Your task to perform on an android device: Toggle the flashlight Image 0: 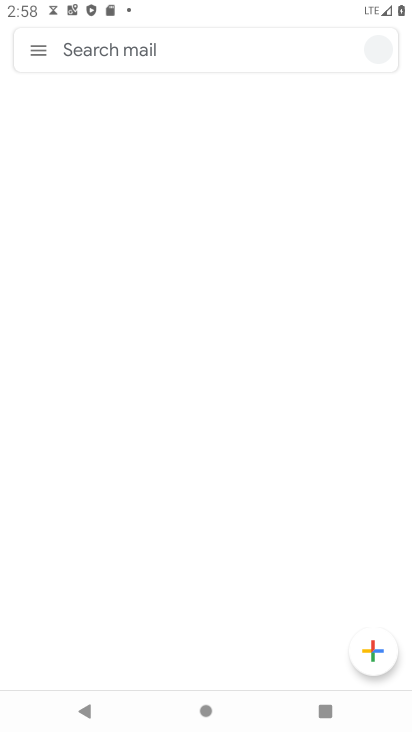
Step 0: drag from (246, 541) to (256, 117)
Your task to perform on an android device: Toggle the flashlight Image 1: 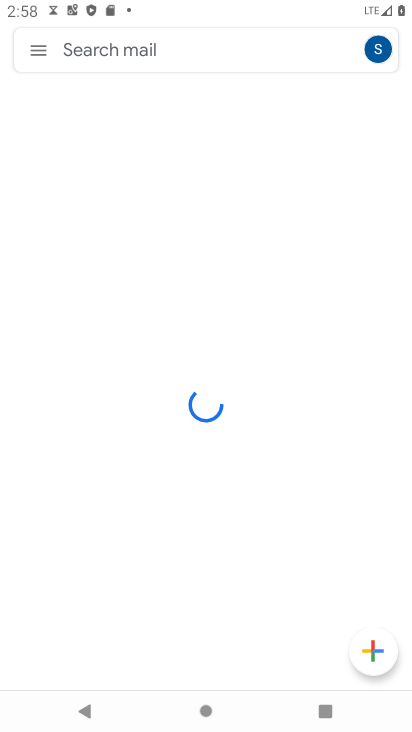
Step 1: press home button
Your task to perform on an android device: Toggle the flashlight Image 2: 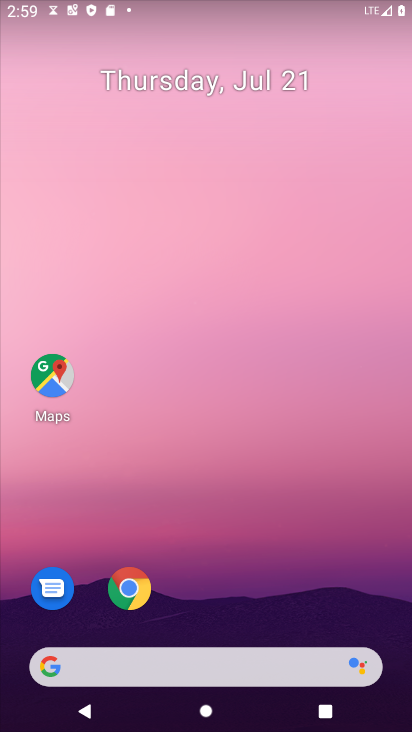
Step 2: drag from (216, 621) to (253, 164)
Your task to perform on an android device: Toggle the flashlight Image 3: 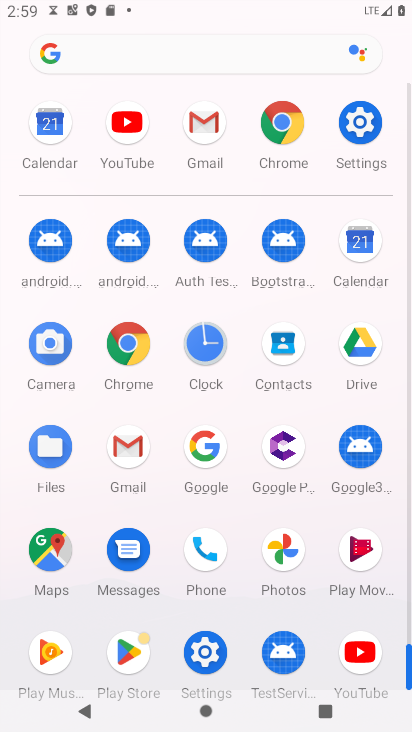
Step 3: click (354, 129)
Your task to perform on an android device: Toggle the flashlight Image 4: 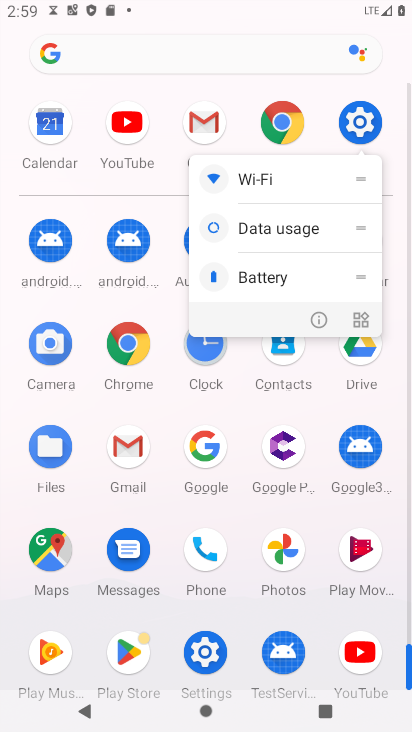
Step 4: click (319, 327)
Your task to perform on an android device: Toggle the flashlight Image 5: 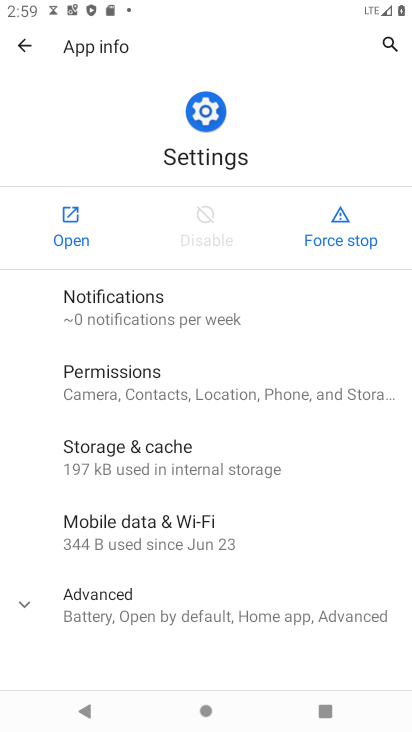
Step 5: click (63, 226)
Your task to perform on an android device: Toggle the flashlight Image 6: 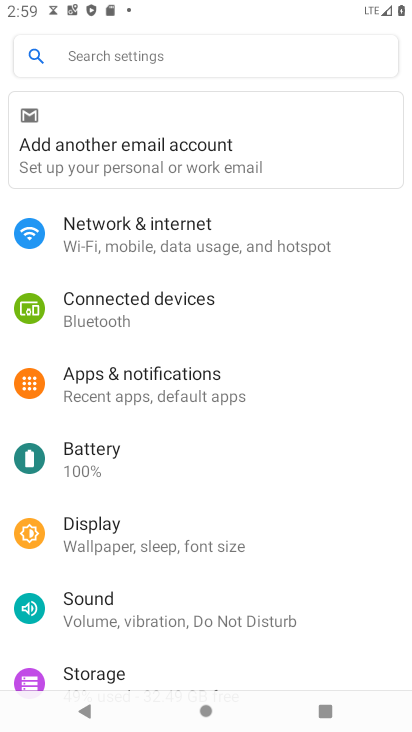
Step 6: click (148, 58)
Your task to perform on an android device: Toggle the flashlight Image 7: 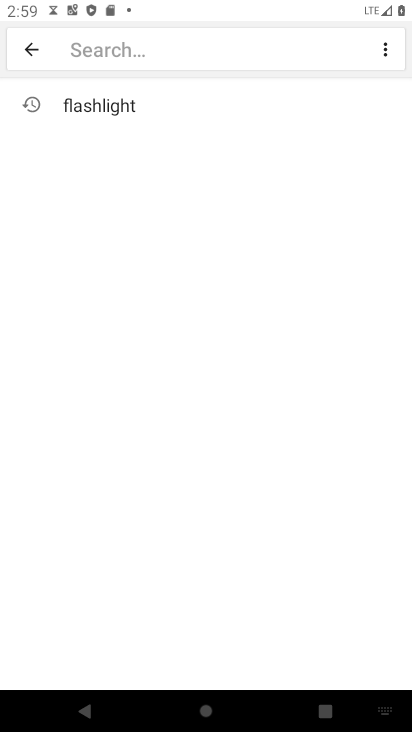
Step 7: click (188, 107)
Your task to perform on an android device: Toggle the flashlight Image 8: 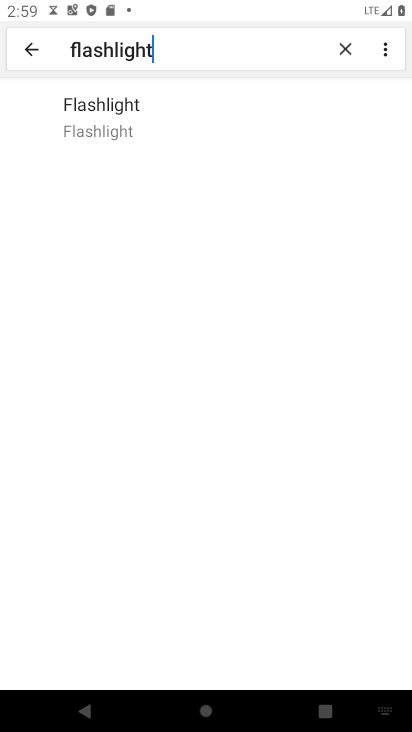
Step 8: click (186, 124)
Your task to perform on an android device: Toggle the flashlight Image 9: 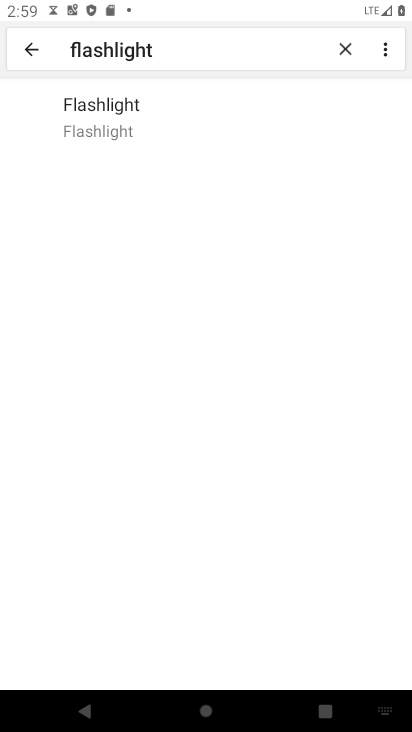
Step 9: task complete